Your task to perform on an android device: Go to Yahoo.com Image 0: 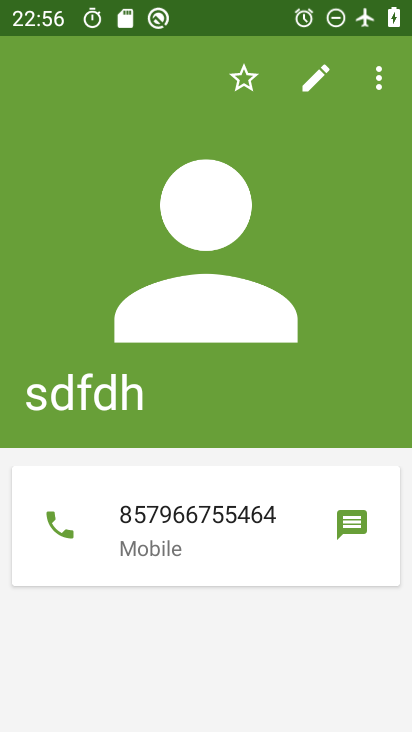
Step 0: press home button
Your task to perform on an android device: Go to Yahoo.com Image 1: 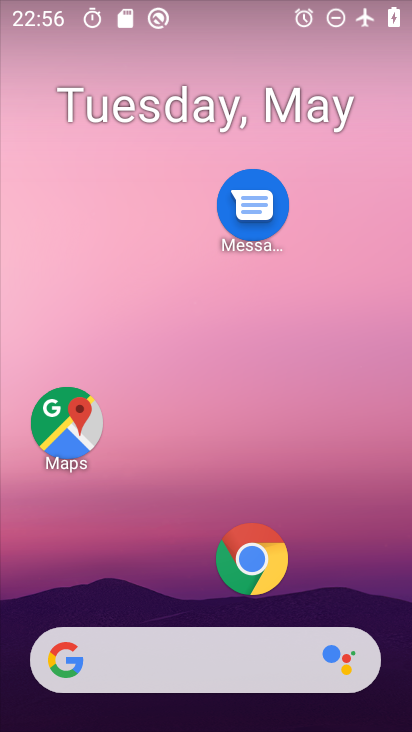
Step 1: click (241, 563)
Your task to perform on an android device: Go to Yahoo.com Image 2: 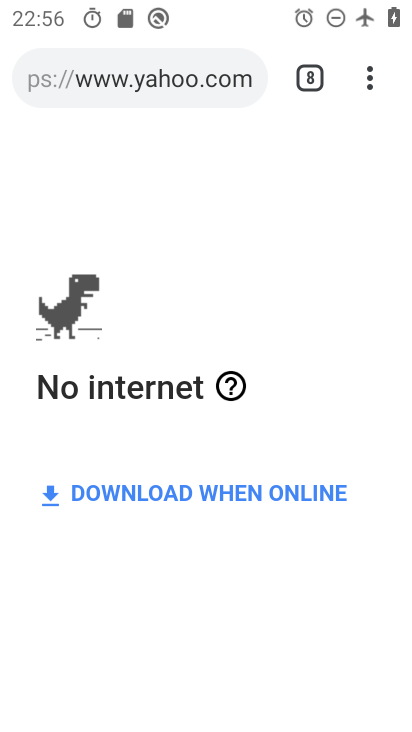
Step 2: click (297, 83)
Your task to perform on an android device: Go to Yahoo.com Image 3: 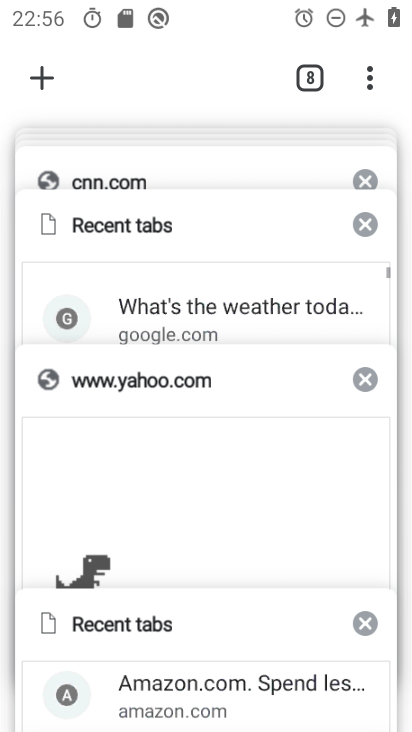
Step 3: click (276, 465)
Your task to perform on an android device: Go to Yahoo.com Image 4: 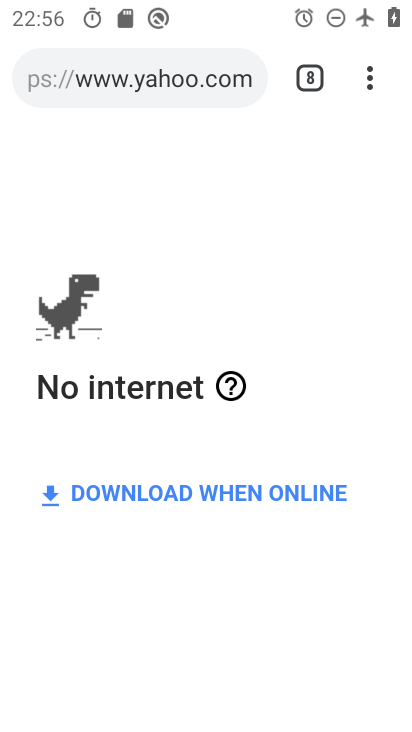
Step 4: task complete